Your task to perform on an android device: toggle priority inbox in the gmail app Image 0: 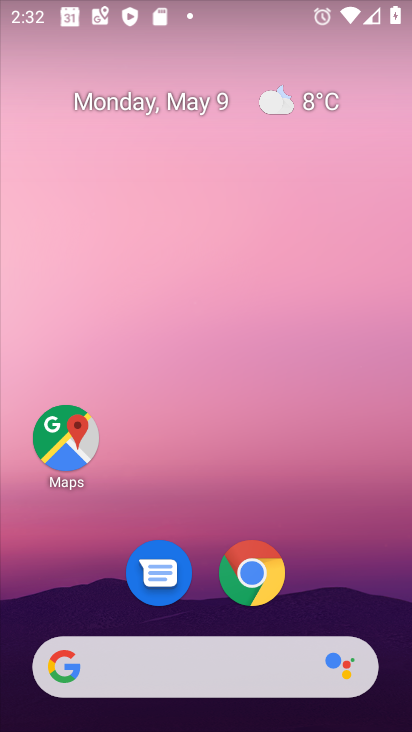
Step 0: drag from (150, 652) to (318, 81)
Your task to perform on an android device: toggle priority inbox in the gmail app Image 1: 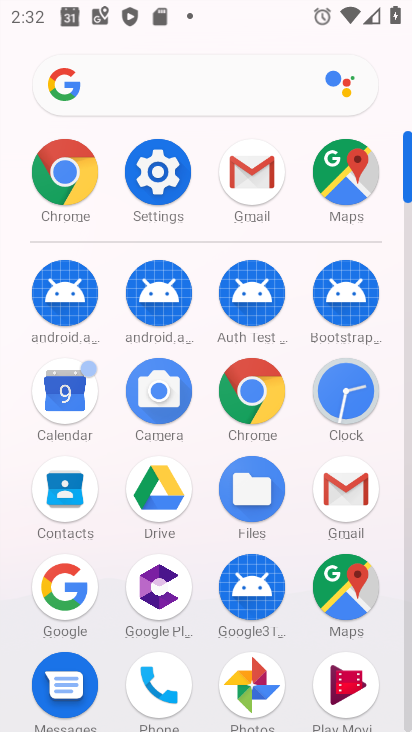
Step 1: click (266, 182)
Your task to perform on an android device: toggle priority inbox in the gmail app Image 2: 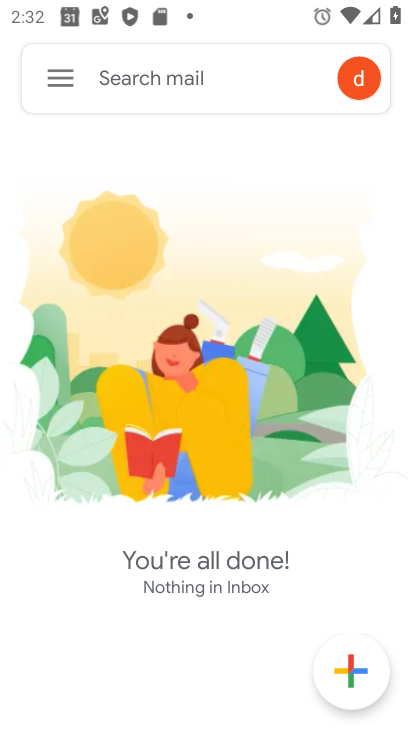
Step 2: click (64, 80)
Your task to perform on an android device: toggle priority inbox in the gmail app Image 3: 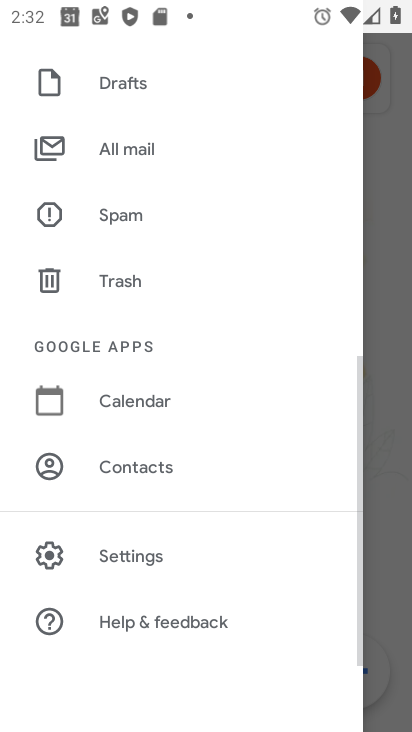
Step 3: click (133, 553)
Your task to perform on an android device: toggle priority inbox in the gmail app Image 4: 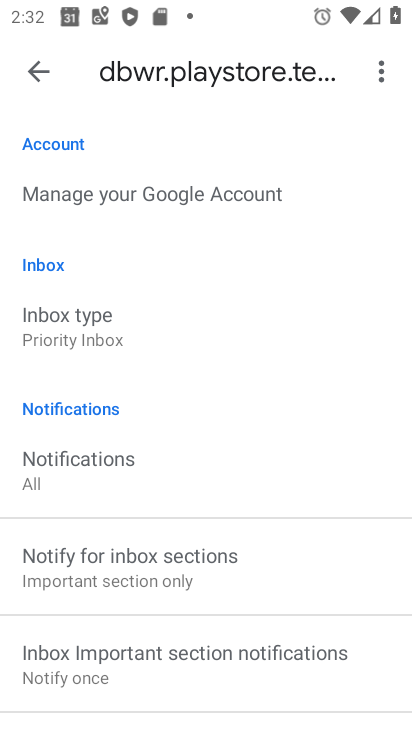
Step 4: click (66, 329)
Your task to perform on an android device: toggle priority inbox in the gmail app Image 5: 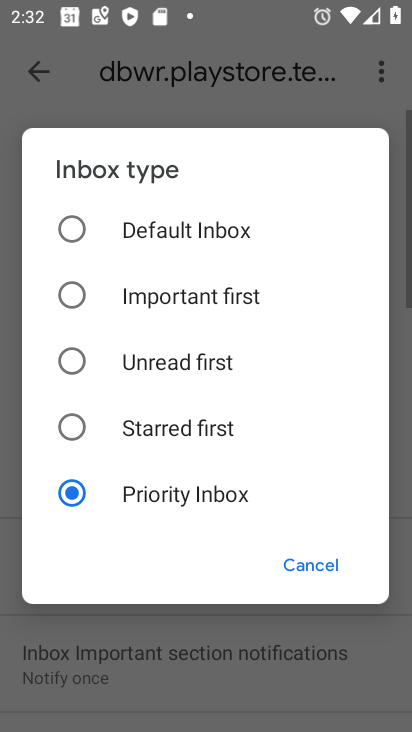
Step 5: click (67, 233)
Your task to perform on an android device: toggle priority inbox in the gmail app Image 6: 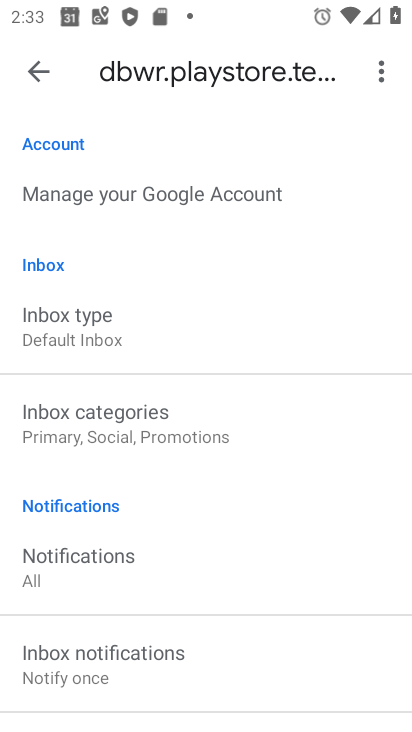
Step 6: task complete